Your task to perform on an android device: turn off sleep mode Image 0: 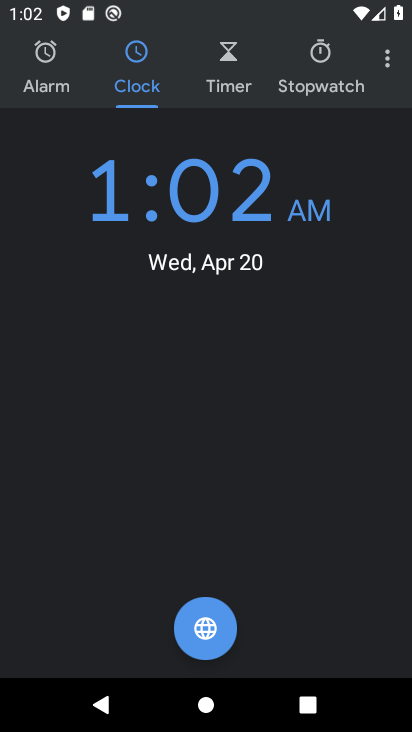
Step 0: press home button
Your task to perform on an android device: turn off sleep mode Image 1: 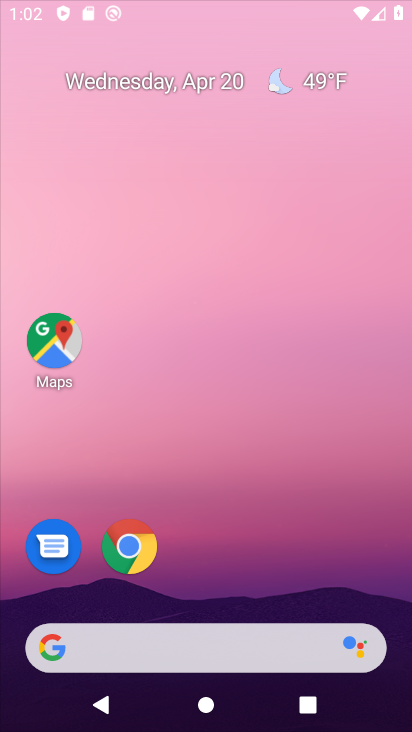
Step 1: press home button
Your task to perform on an android device: turn off sleep mode Image 2: 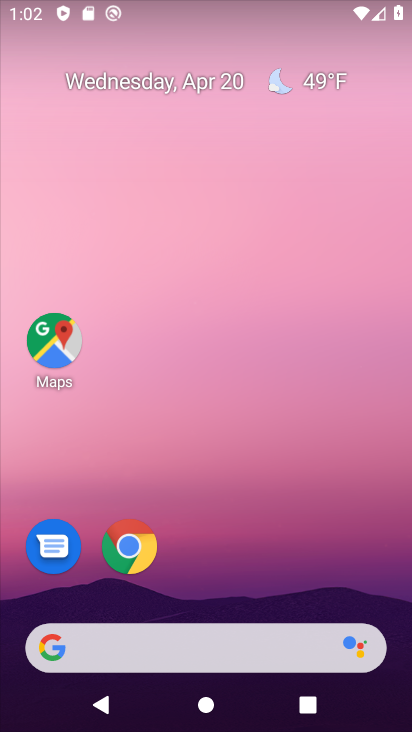
Step 2: drag from (242, 447) to (242, 222)
Your task to perform on an android device: turn off sleep mode Image 3: 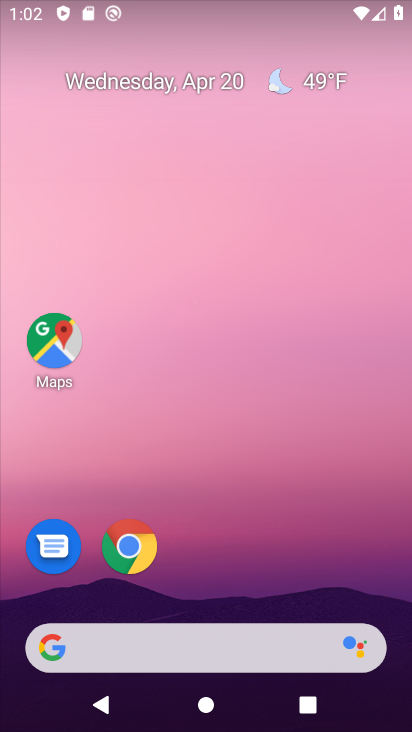
Step 3: drag from (276, 606) to (239, 205)
Your task to perform on an android device: turn off sleep mode Image 4: 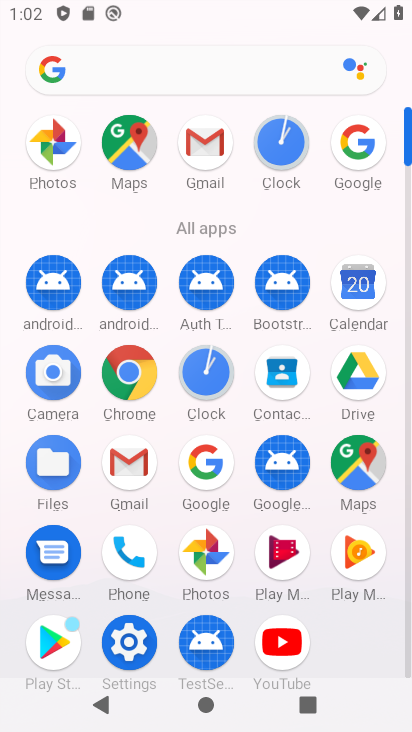
Step 4: click (119, 633)
Your task to perform on an android device: turn off sleep mode Image 5: 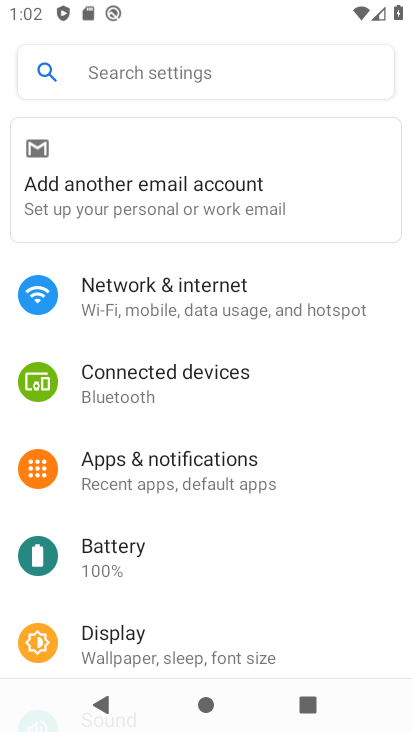
Step 5: task complete